Your task to perform on an android device: What's the weather? Image 0: 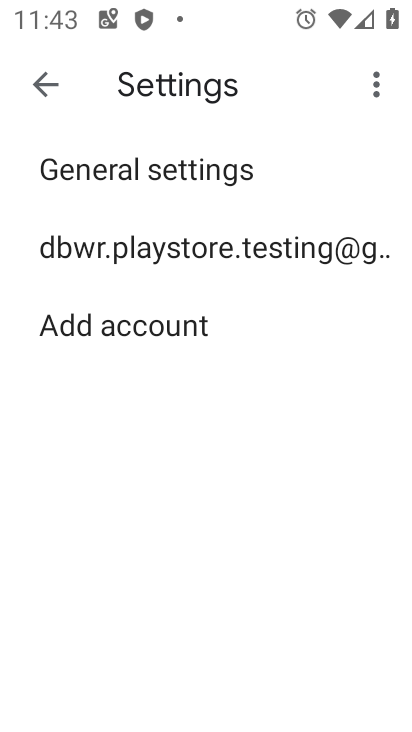
Step 0: press home button
Your task to perform on an android device: What's the weather? Image 1: 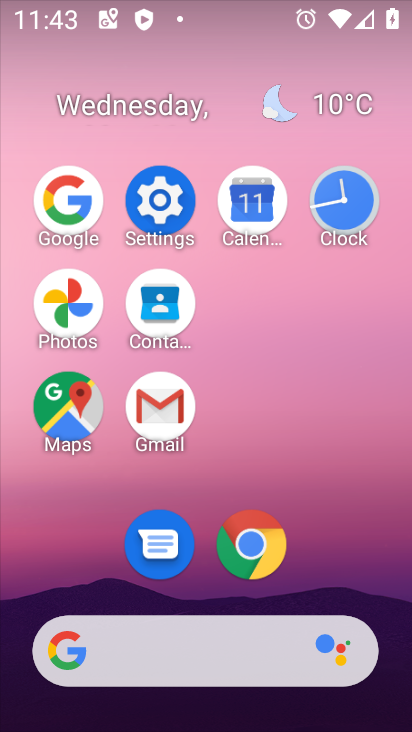
Step 1: click (71, 226)
Your task to perform on an android device: What's the weather? Image 2: 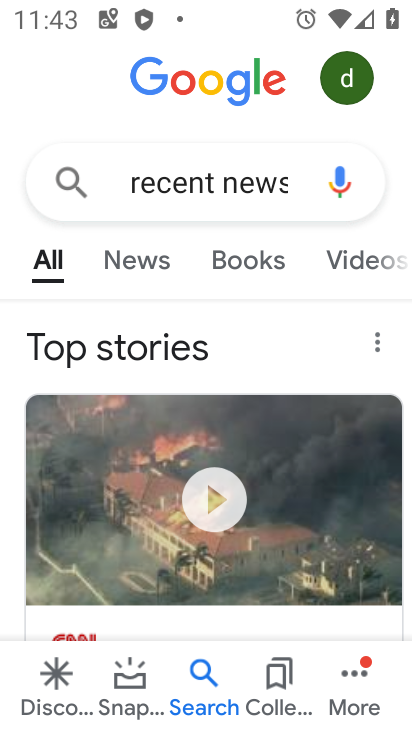
Step 2: click (265, 186)
Your task to perform on an android device: What's the weather? Image 3: 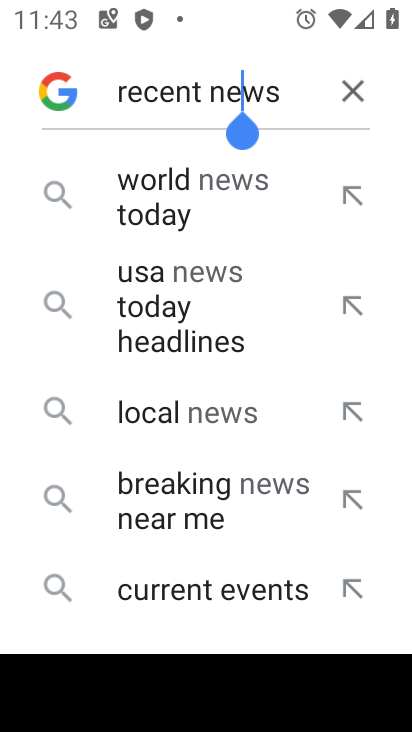
Step 3: click (333, 90)
Your task to perform on an android device: What's the weather? Image 4: 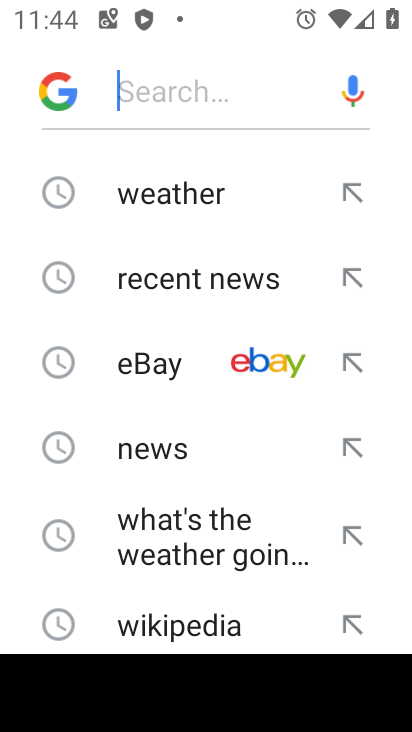
Step 4: click (141, 191)
Your task to perform on an android device: What's the weather? Image 5: 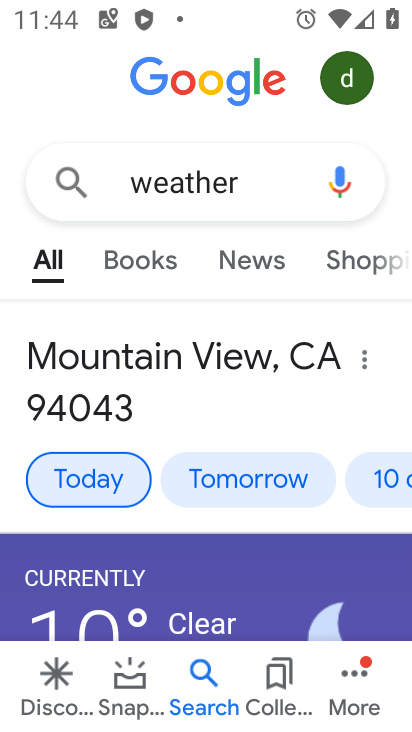
Step 5: task complete